Your task to perform on an android device: Show me productivity apps on the Play Store Image 0: 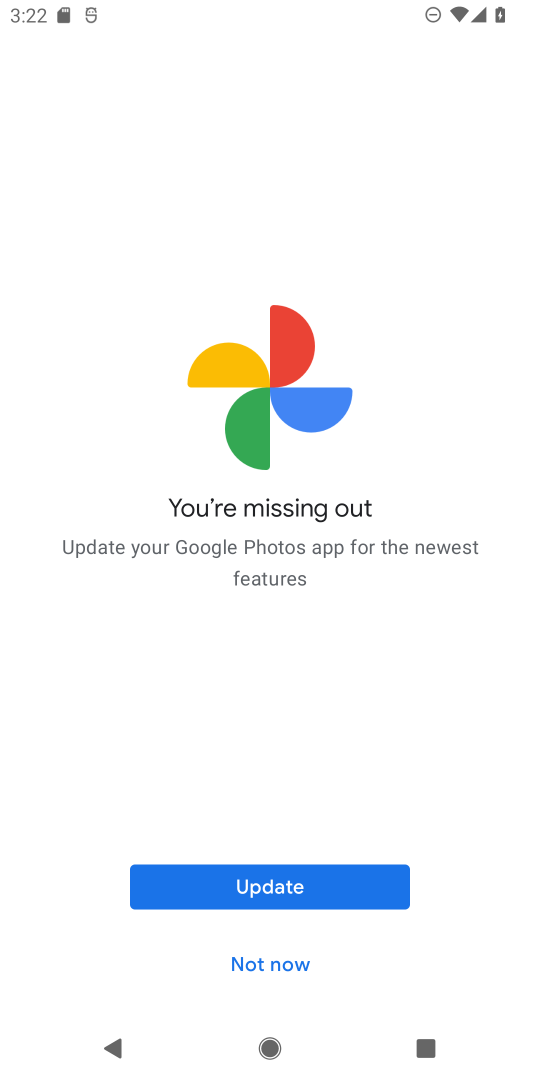
Step 0: press home button
Your task to perform on an android device: Show me productivity apps on the Play Store Image 1: 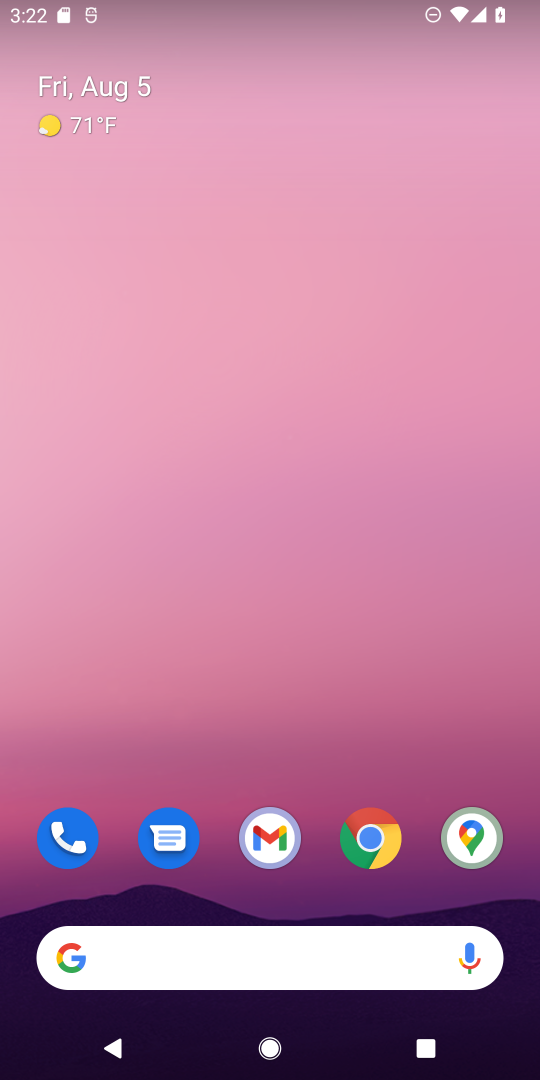
Step 1: drag from (432, 781) to (353, 197)
Your task to perform on an android device: Show me productivity apps on the Play Store Image 2: 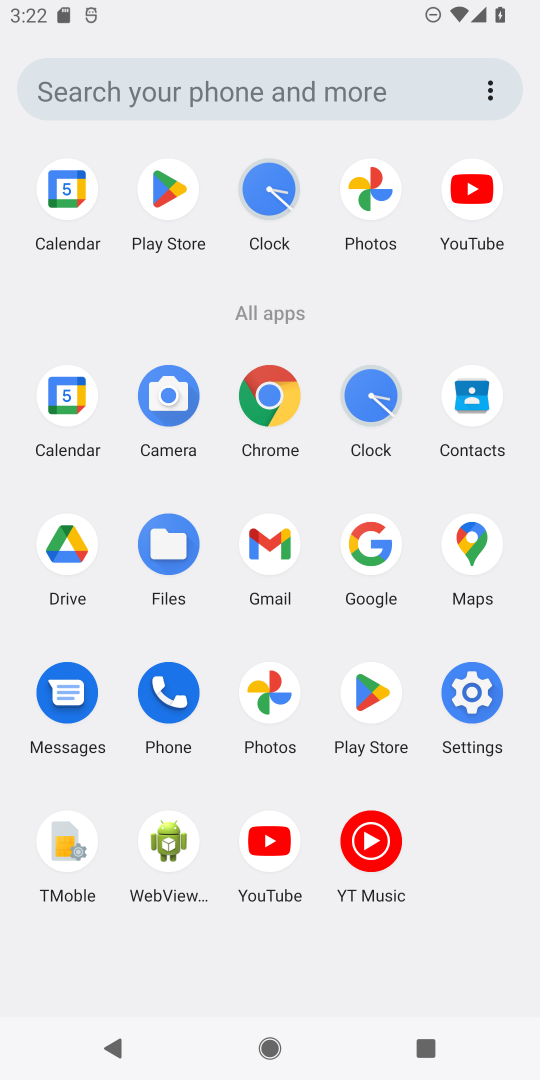
Step 2: click (375, 703)
Your task to perform on an android device: Show me productivity apps on the Play Store Image 3: 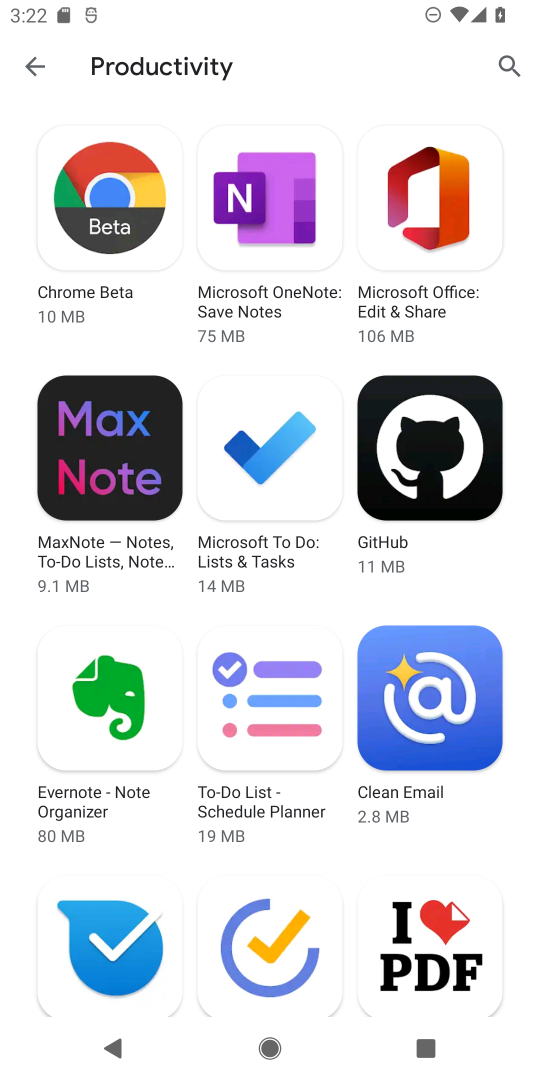
Step 3: task complete